Your task to perform on an android device: turn on priority inbox in the gmail app Image 0: 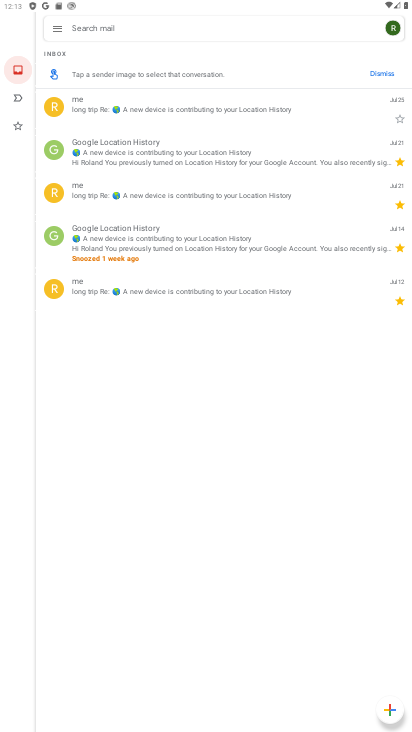
Step 0: click (60, 27)
Your task to perform on an android device: turn on priority inbox in the gmail app Image 1: 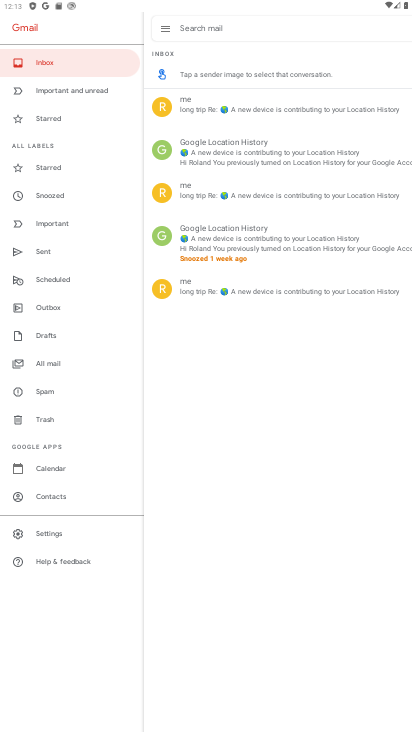
Step 1: click (48, 529)
Your task to perform on an android device: turn on priority inbox in the gmail app Image 2: 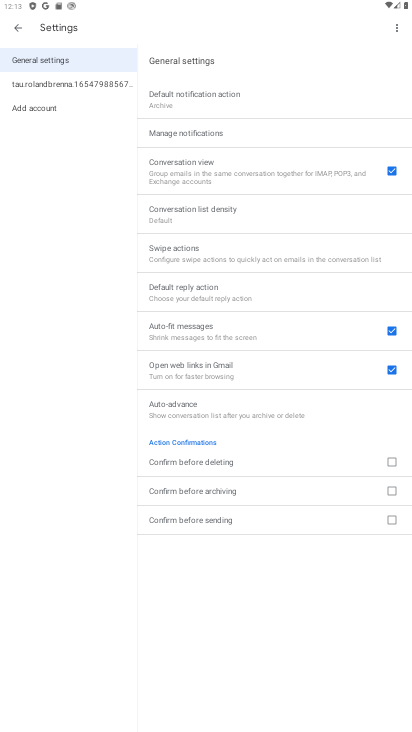
Step 2: click (63, 87)
Your task to perform on an android device: turn on priority inbox in the gmail app Image 3: 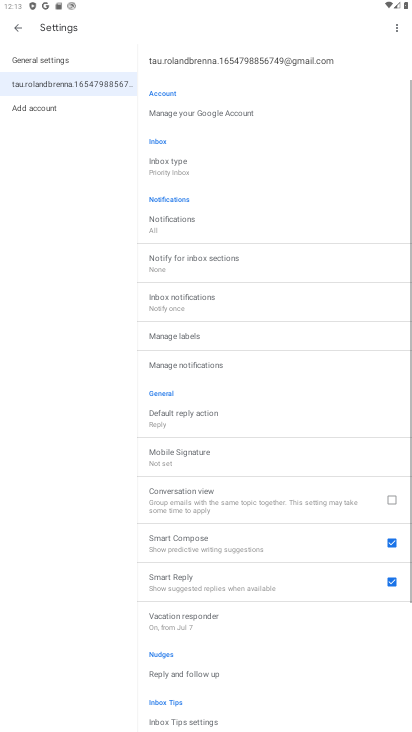
Step 3: click (165, 164)
Your task to perform on an android device: turn on priority inbox in the gmail app Image 4: 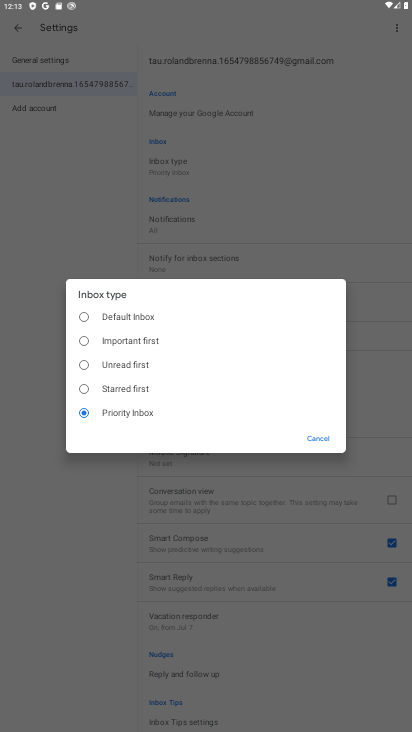
Step 4: task complete